Your task to perform on an android device: Go to location settings Image 0: 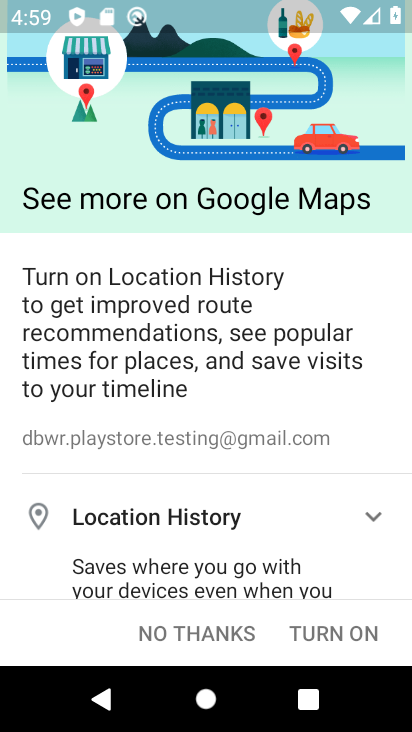
Step 0: press home button
Your task to perform on an android device: Go to location settings Image 1: 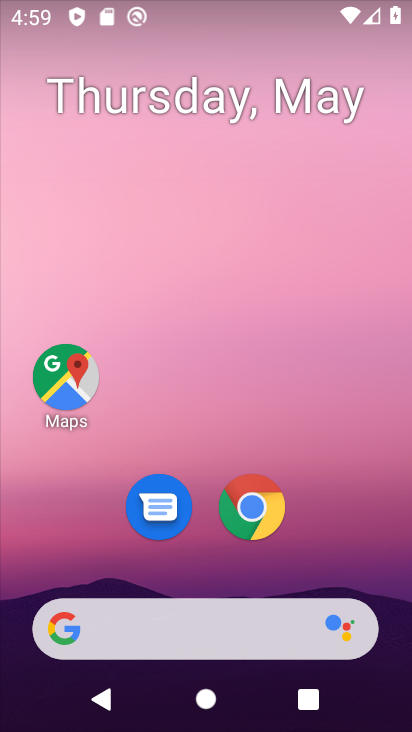
Step 1: drag from (370, 543) to (280, 146)
Your task to perform on an android device: Go to location settings Image 2: 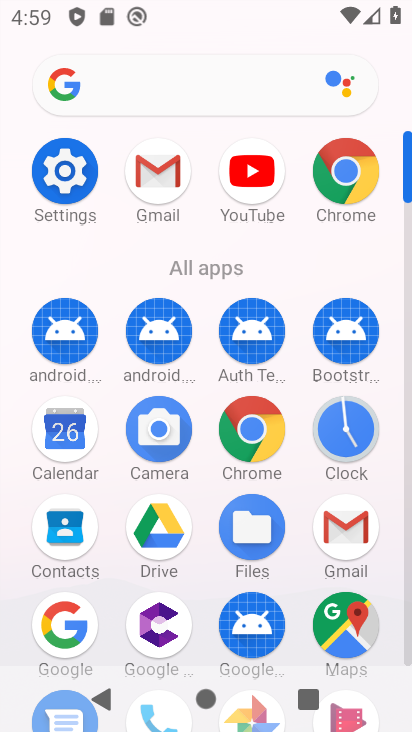
Step 2: click (69, 177)
Your task to perform on an android device: Go to location settings Image 3: 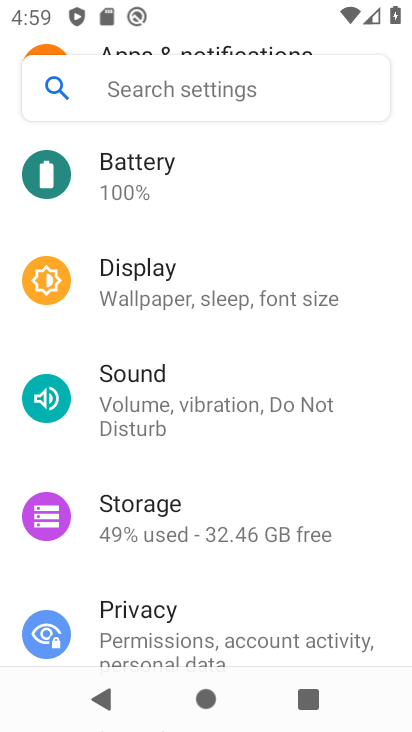
Step 3: drag from (215, 596) to (254, 197)
Your task to perform on an android device: Go to location settings Image 4: 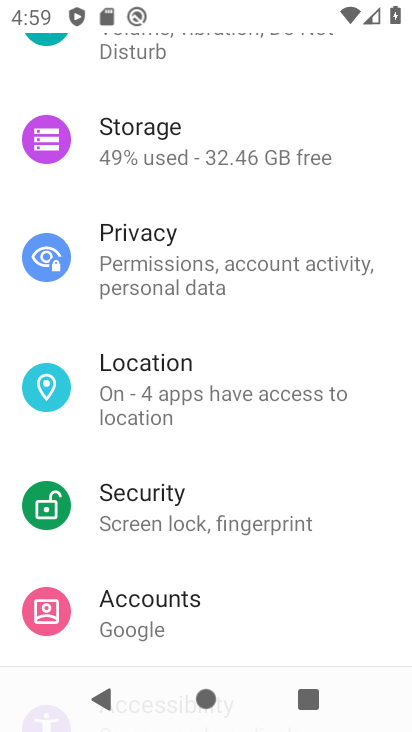
Step 4: click (192, 370)
Your task to perform on an android device: Go to location settings Image 5: 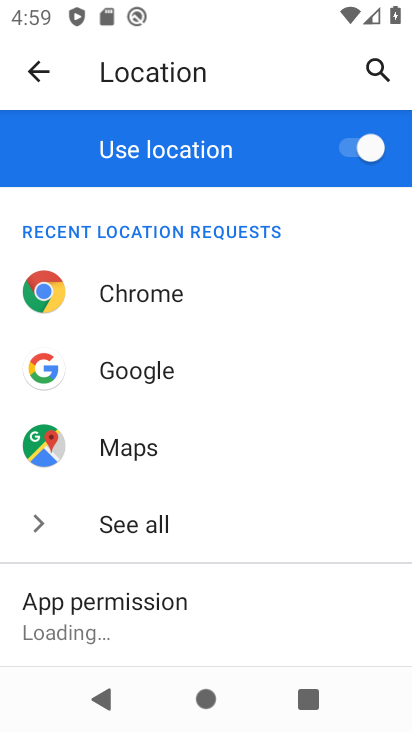
Step 5: task complete